Your task to perform on an android device: find which apps use the phone's location Image 0: 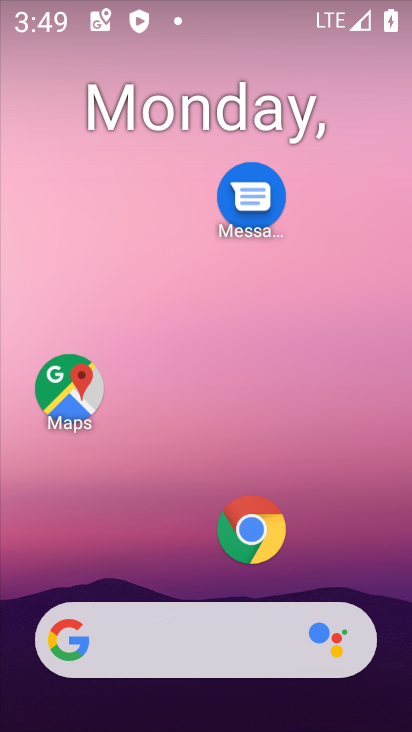
Step 0: drag from (168, 521) to (209, 170)
Your task to perform on an android device: find which apps use the phone's location Image 1: 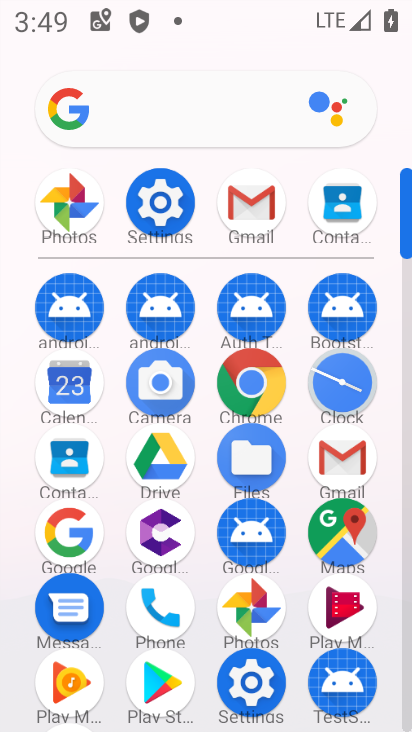
Step 1: click (238, 658)
Your task to perform on an android device: find which apps use the phone's location Image 2: 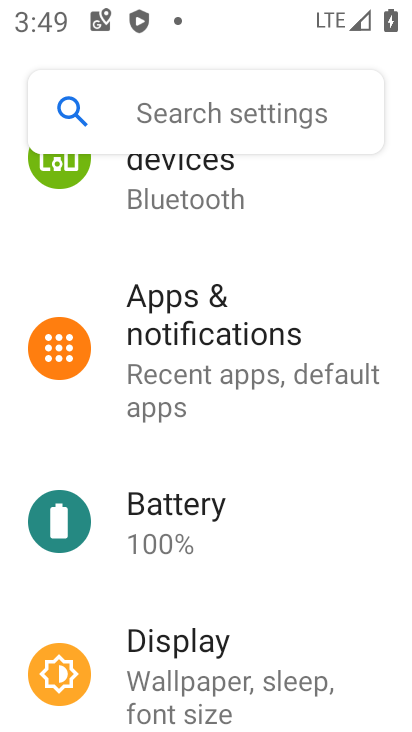
Step 2: drag from (195, 678) to (272, 101)
Your task to perform on an android device: find which apps use the phone's location Image 3: 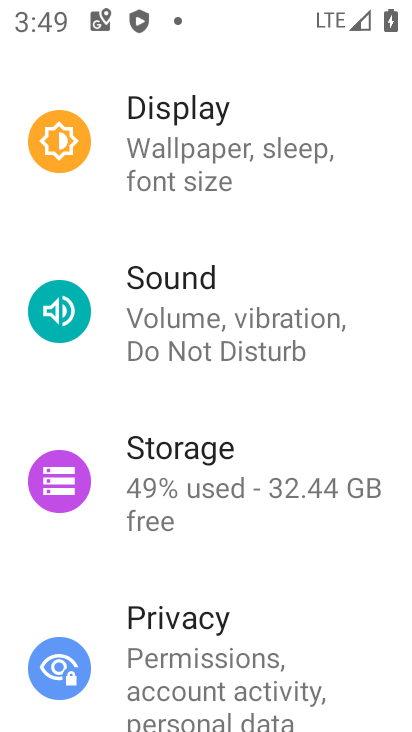
Step 3: drag from (220, 162) to (228, 696)
Your task to perform on an android device: find which apps use the phone's location Image 4: 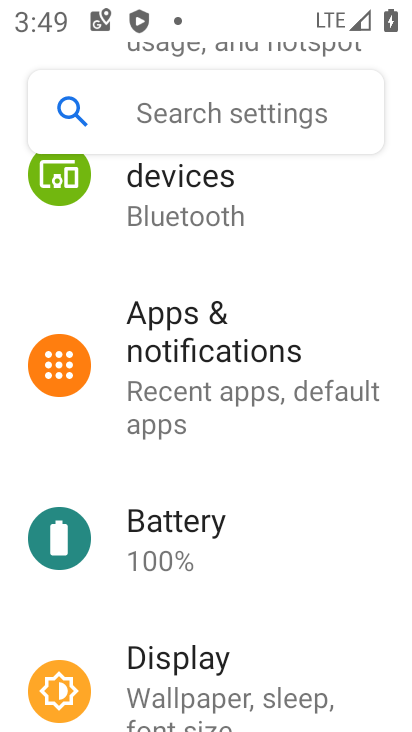
Step 4: drag from (175, 342) to (205, 727)
Your task to perform on an android device: find which apps use the phone's location Image 5: 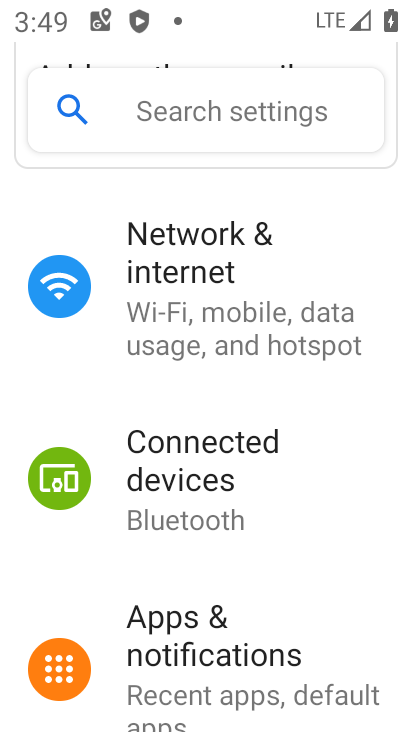
Step 5: drag from (221, 452) to (354, 57)
Your task to perform on an android device: find which apps use the phone's location Image 6: 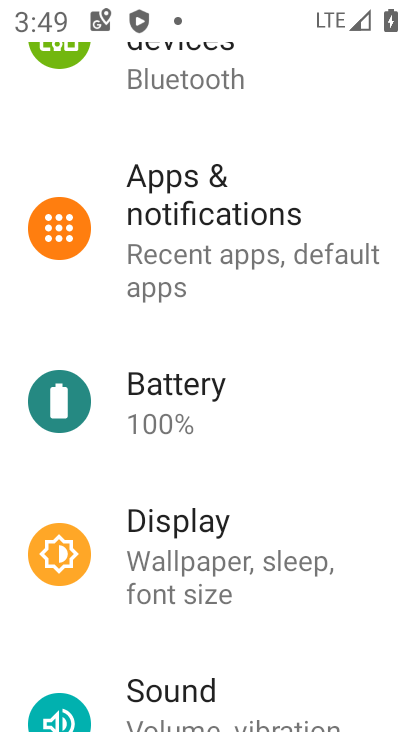
Step 6: drag from (207, 637) to (288, 85)
Your task to perform on an android device: find which apps use the phone's location Image 7: 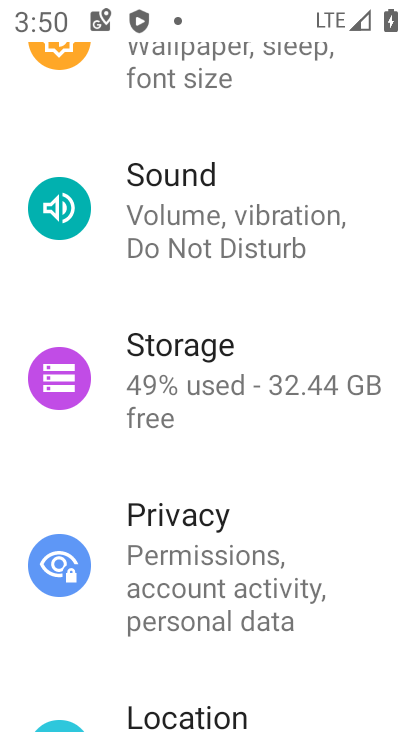
Step 7: drag from (177, 612) to (217, 336)
Your task to perform on an android device: find which apps use the phone's location Image 8: 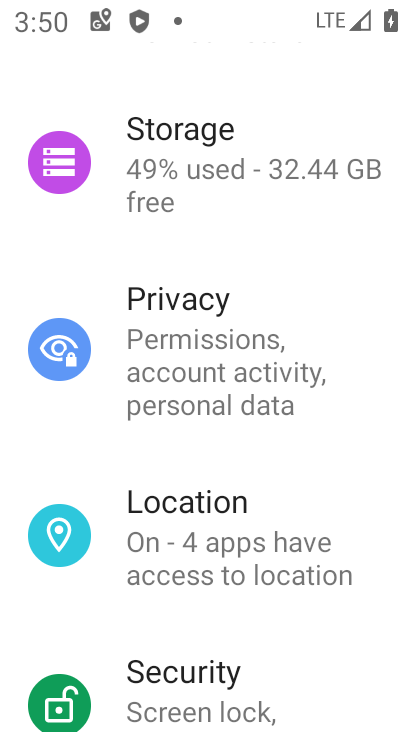
Step 8: click (187, 518)
Your task to perform on an android device: find which apps use the phone's location Image 9: 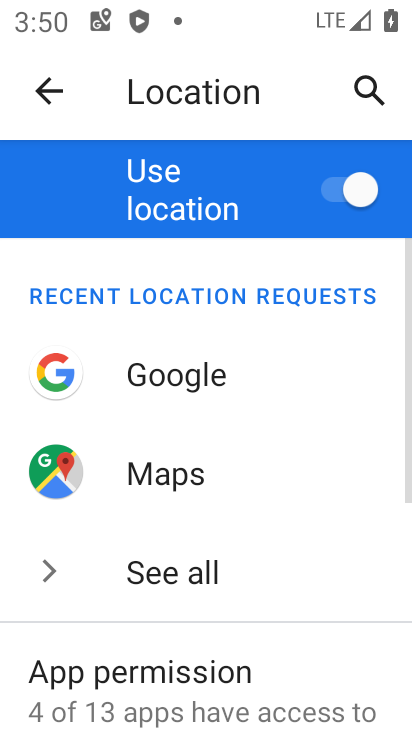
Step 9: click (112, 670)
Your task to perform on an android device: find which apps use the phone's location Image 10: 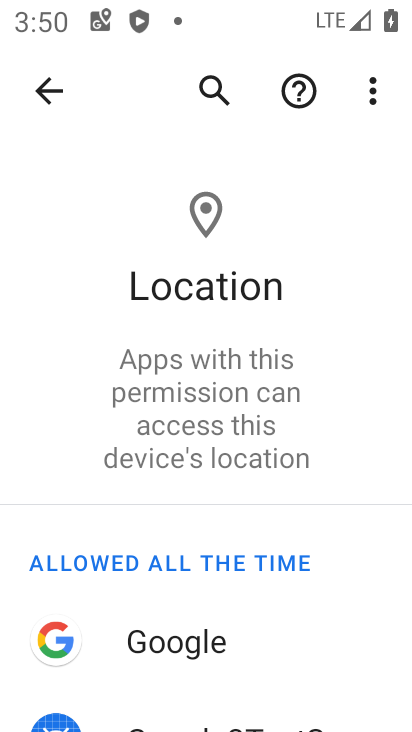
Step 10: task complete